Your task to perform on an android device: Open calendar and show me the fourth week of next month Image 0: 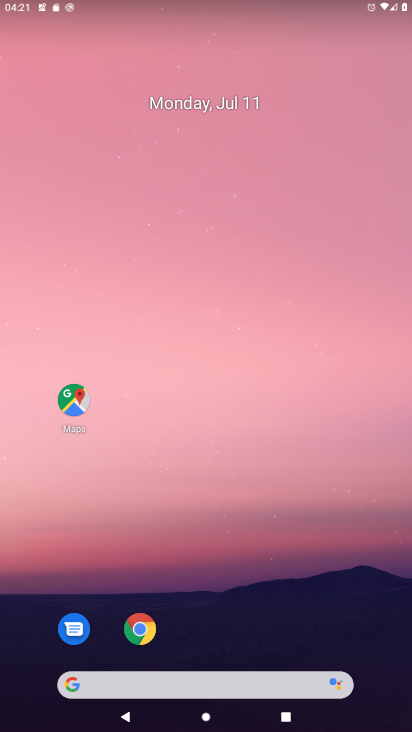
Step 0: drag from (243, 384) to (299, 22)
Your task to perform on an android device: Open calendar and show me the fourth week of next month Image 1: 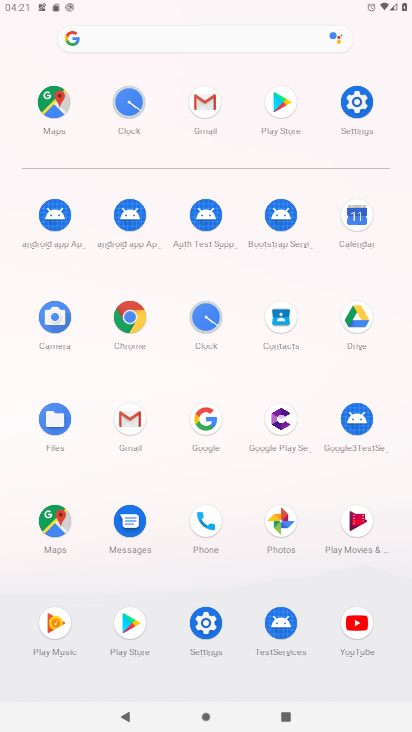
Step 1: click (363, 218)
Your task to perform on an android device: Open calendar and show me the fourth week of next month Image 2: 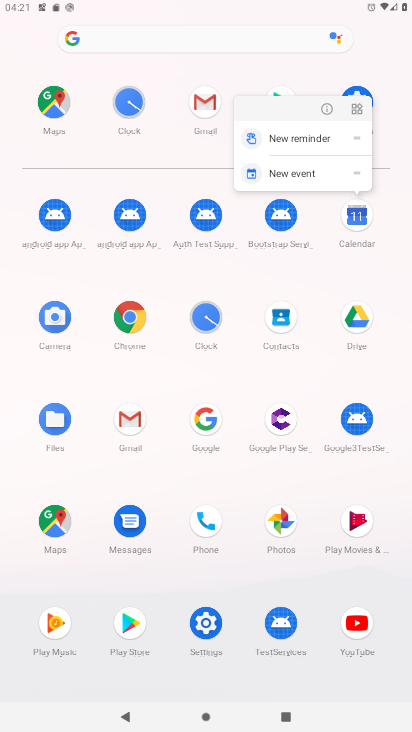
Step 2: click (350, 229)
Your task to perform on an android device: Open calendar and show me the fourth week of next month Image 3: 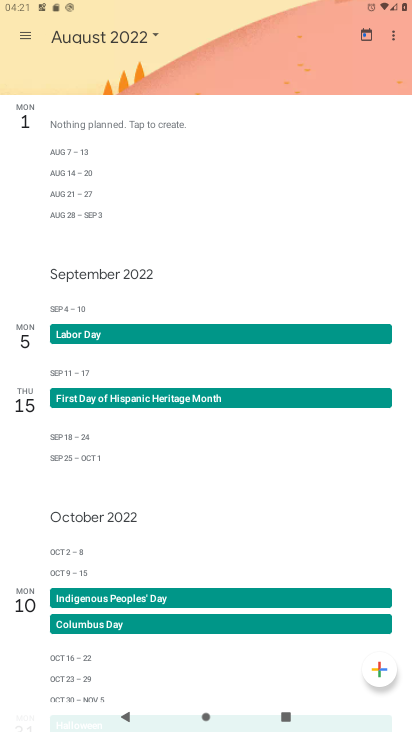
Step 3: click (130, 31)
Your task to perform on an android device: Open calendar and show me the fourth week of next month Image 4: 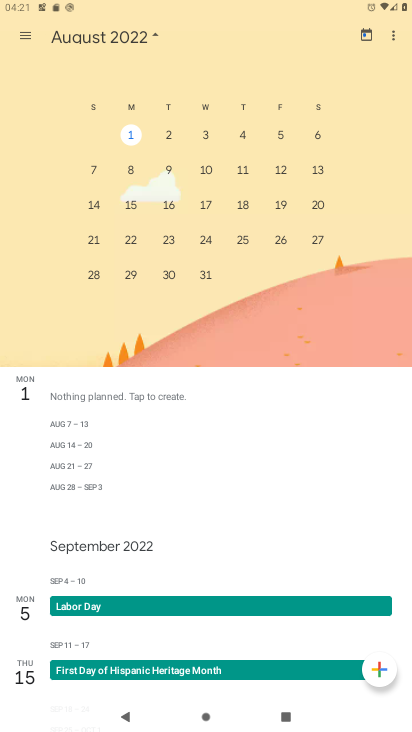
Step 4: click (134, 230)
Your task to perform on an android device: Open calendar and show me the fourth week of next month Image 5: 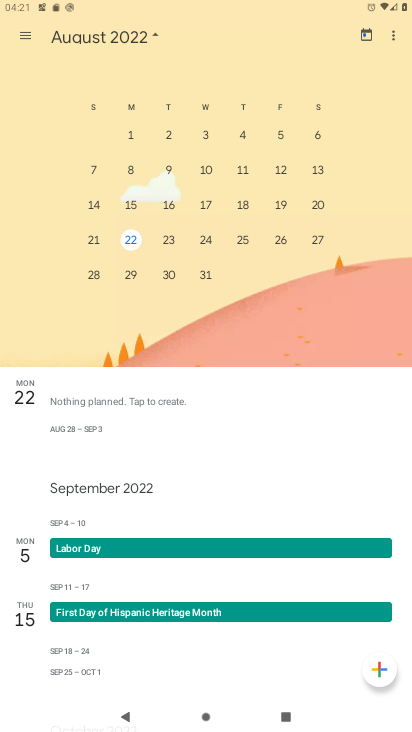
Step 5: task complete